Your task to perform on an android device: turn on the 24-hour format for clock Image 0: 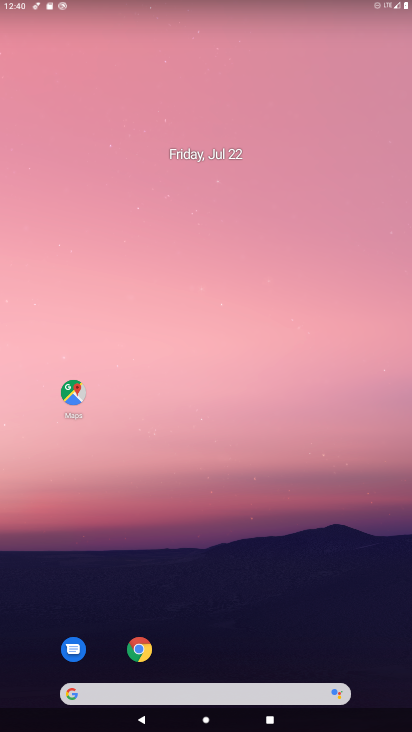
Step 0: press home button
Your task to perform on an android device: turn on the 24-hour format for clock Image 1: 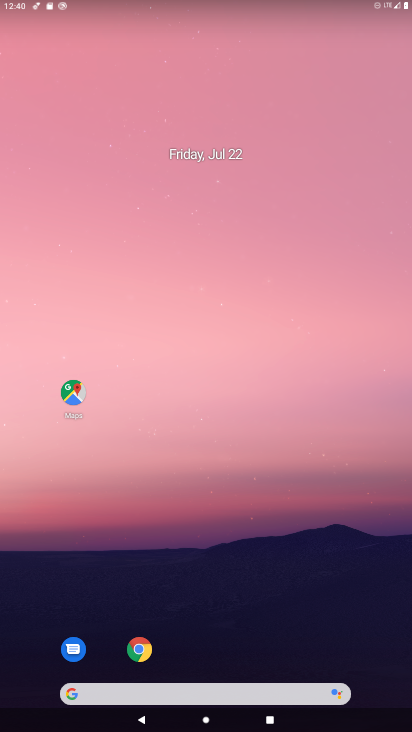
Step 1: click (234, 721)
Your task to perform on an android device: turn on the 24-hour format for clock Image 2: 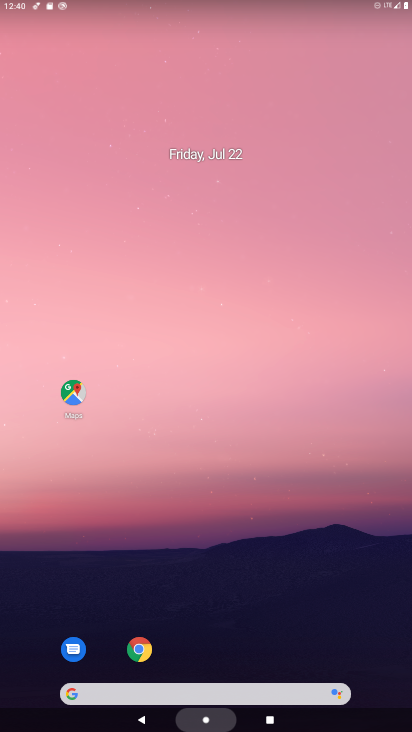
Step 2: click (227, 249)
Your task to perform on an android device: turn on the 24-hour format for clock Image 3: 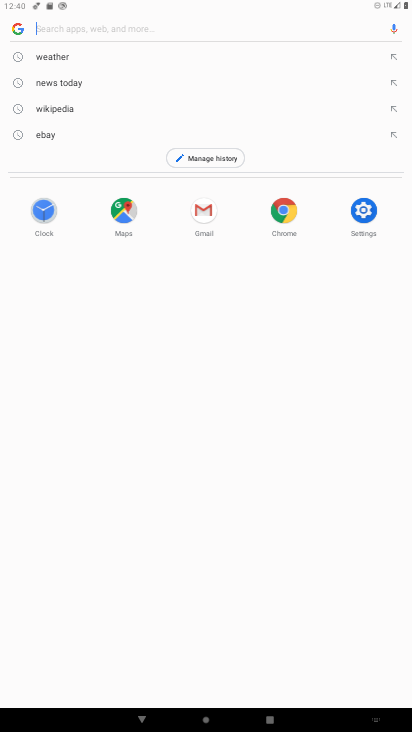
Step 3: press home button
Your task to perform on an android device: turn on the 24-hour format for clock Image 4: 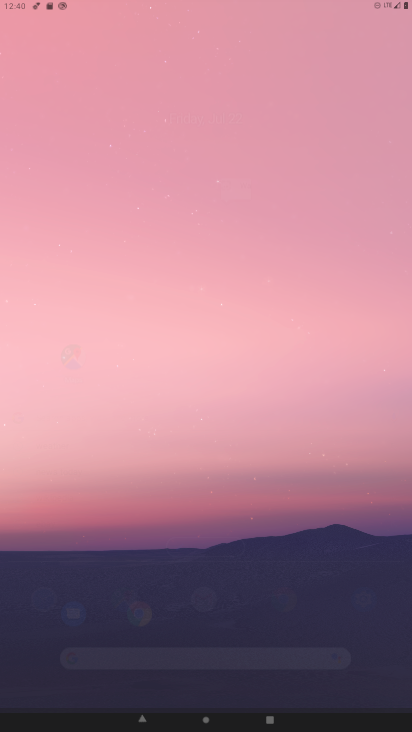
Step 4: drag from (227, 249) to (396, 692)
Your task to perform on an android device: turn on the 24-hour format for clock Image 5: 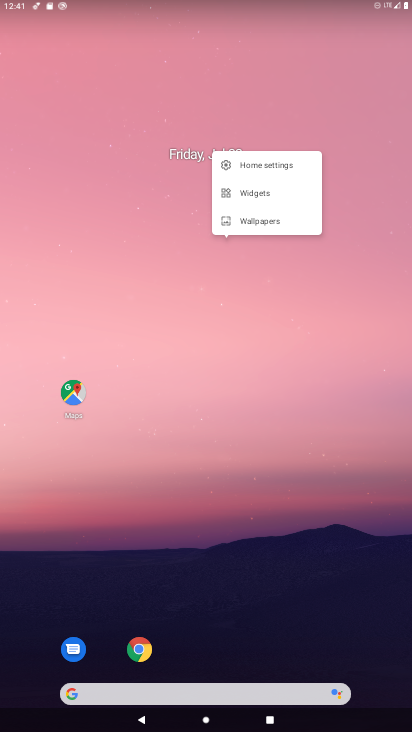
Step 5: click (273, 394)
Your task to perform on an android device: turn on the 24-hour format for clock Image 6: 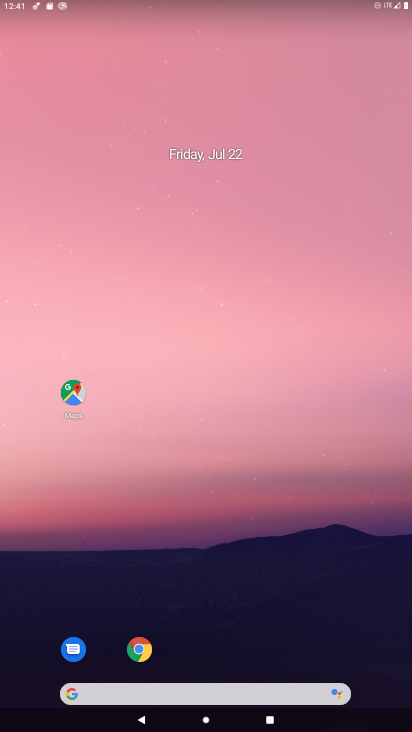
Step 6: drag from (232, 635) to (231, 290)
Your task to perform on an android device: turn on the 24-hour format for clock Image 7: 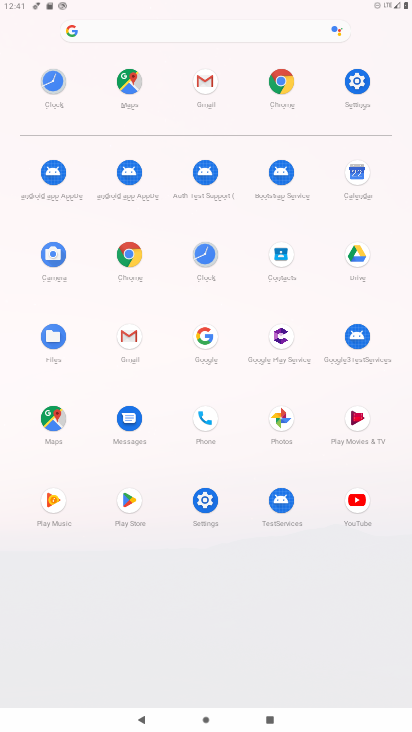
Step 7: click (207, 253)
Your task to perform on an android device: turn on the 24-hour format for clock Image 8: 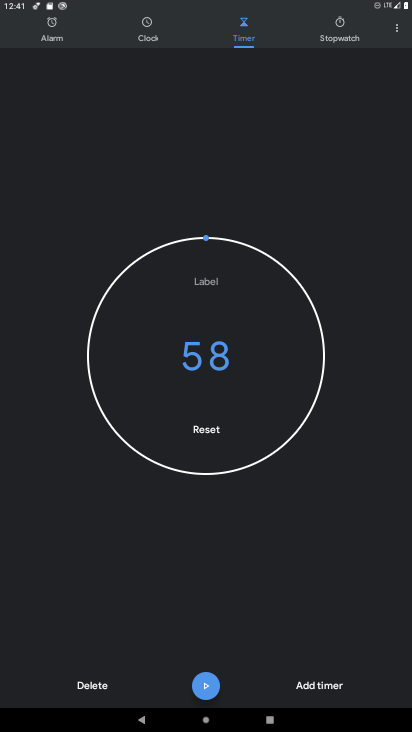
Step 8: click (400, 28)
Your task to perform on an android device: turn on the 24-hour format for clock Image 9: 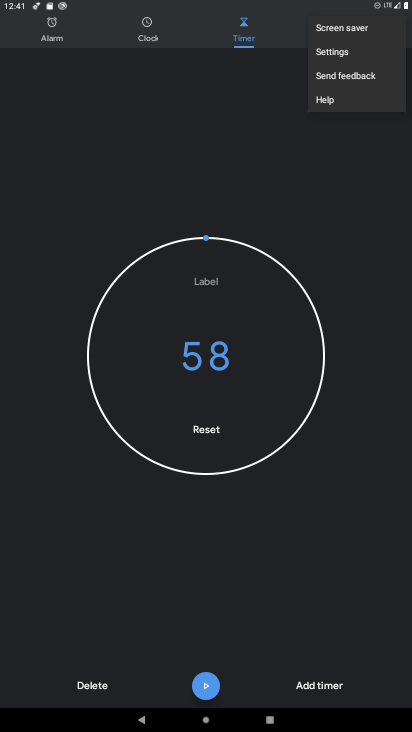
Step 9: click (332, 50)
Your task to perform on an android device: turn on the 24-hour format for clock Image 10: 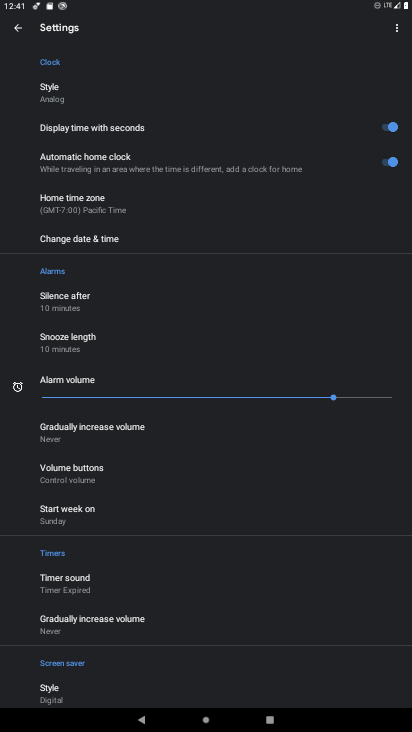
Step 10: click (92, 240)
Your task to perform on an android device: turn on the 24-hour format for clock Image 11: 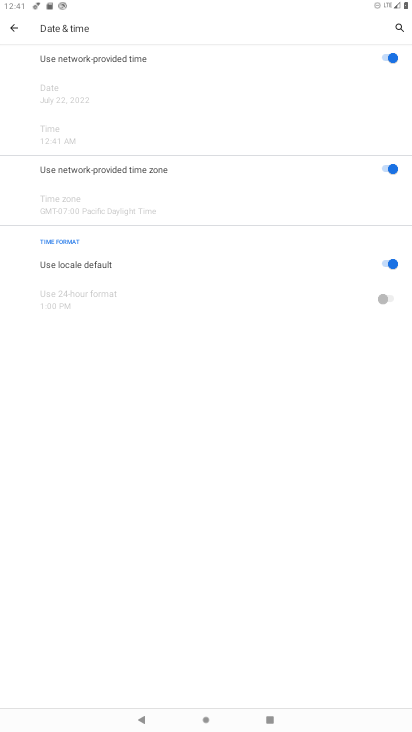
Step 11: click (389, 266)
Your task to perform on an android device: turn on the 24-hour format for clock Image 12: 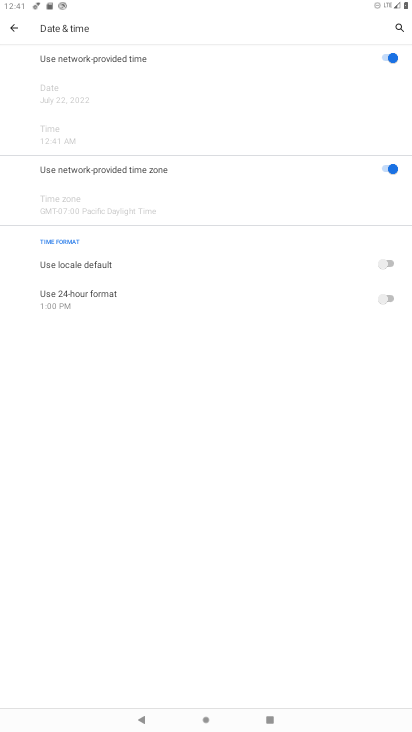
Step 12: click (389, 295)
Your task to perform on an android device: turn on the 24-hour format for clock Image 13: 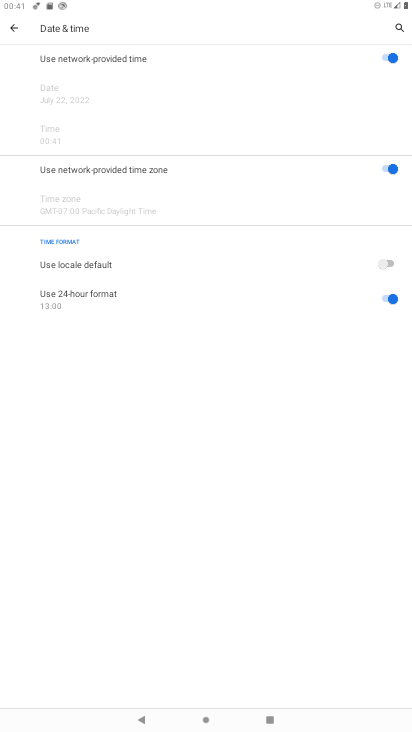
Step 13: task complete